Your task to perform on an android device: Open sound settings Image 0: 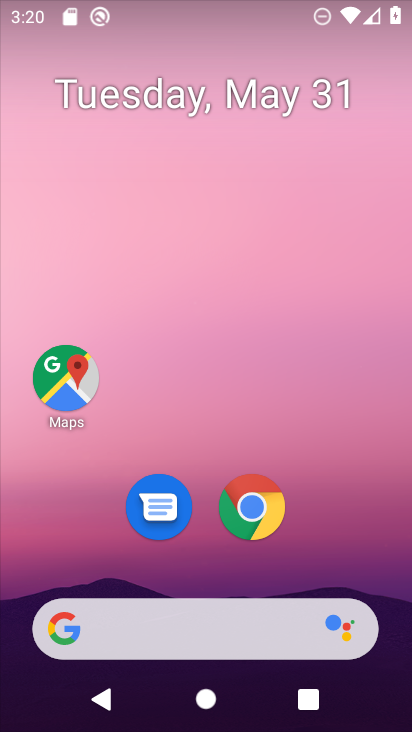
Step 0: drag from (135, 723) to (224, 152)
Your task to perform on an android device: Open sound settings Image 1: 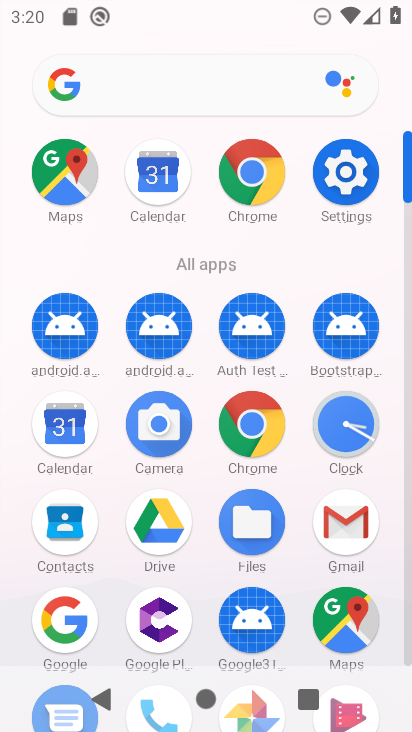
Step 1: click (337, 156)
Your task to perform on an android device: Open sound settings Image 2: 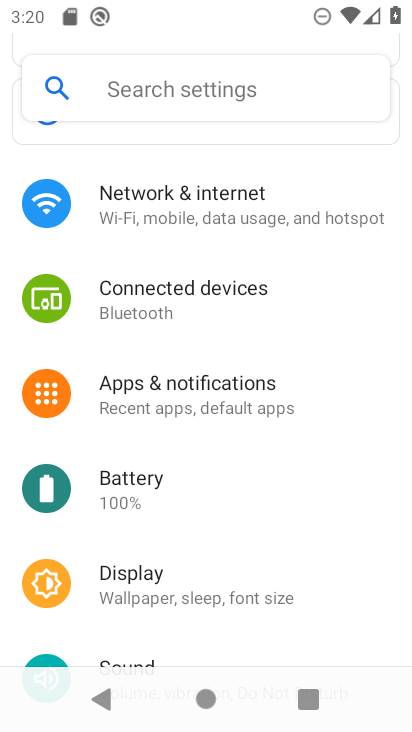
Step 2: drag from (197, 645) to (232, 312)
Your task to perform on an android device: Open sound settings Image 3: 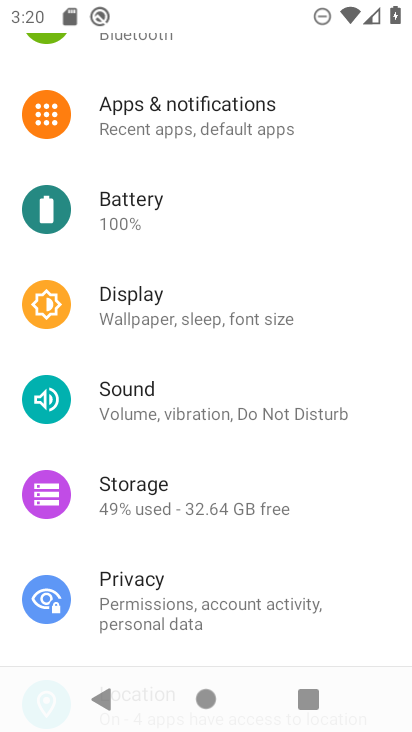
Step 3: click (154, 406)
Your task to perform on an android device: Open sound settings Image 4: 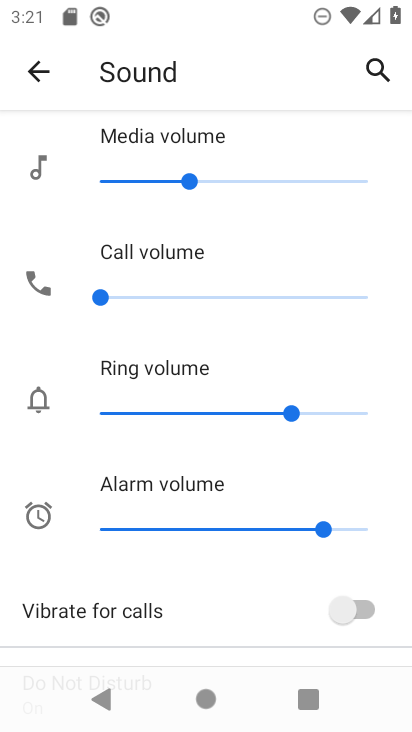
Step 4: task complete